Your task to perform on an android device: Go to battery settings Image 0: 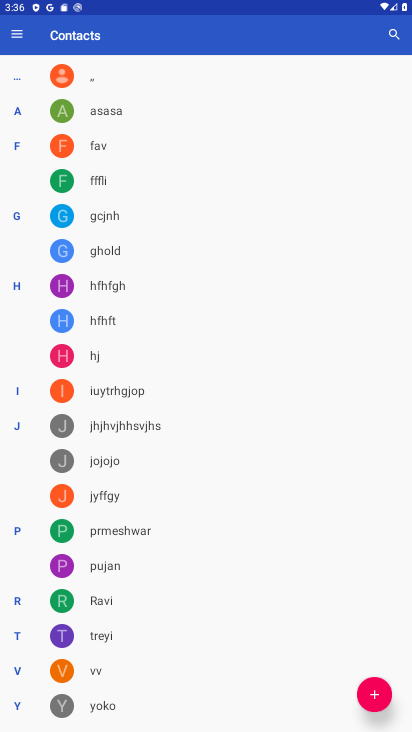
Step 0: press home button
Your task to perform on an android device: Go to battery settings Image 1: 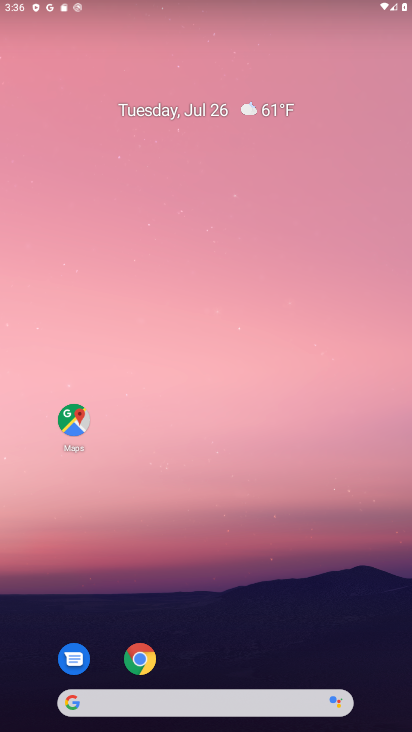
Step 1: drag from (325, 626) to (218, 1)
Your task to perform on an android device: Go to battery settings Image 2: 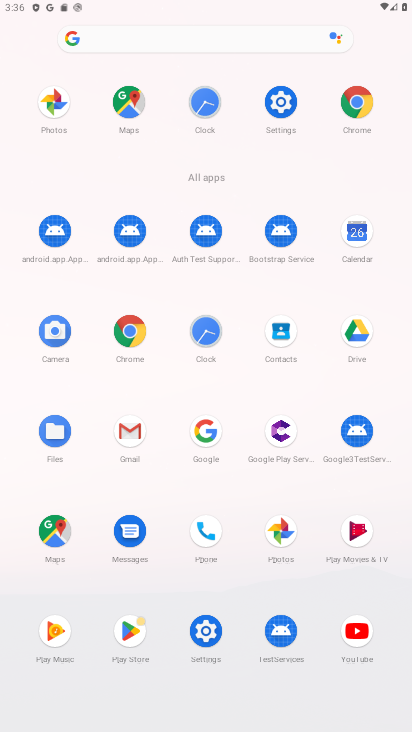
Step 2: click (293, 100)
Your task to perform on an android device: Go to battery settings Image 3: 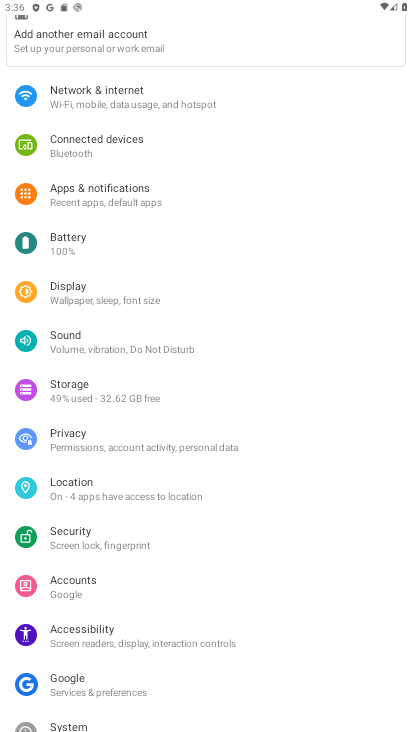
Step 3: click (71, 246)
Your task to perform on an android device: Go to battery settings Image 4: 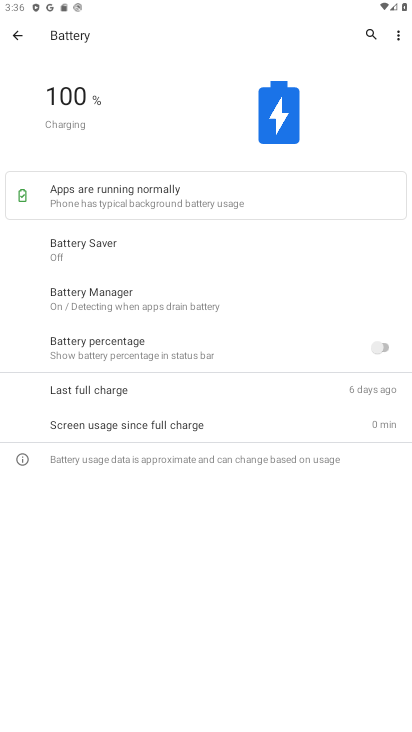
Step 4: task complete